Your task to perform on an android device: What's the weather? Image 0: 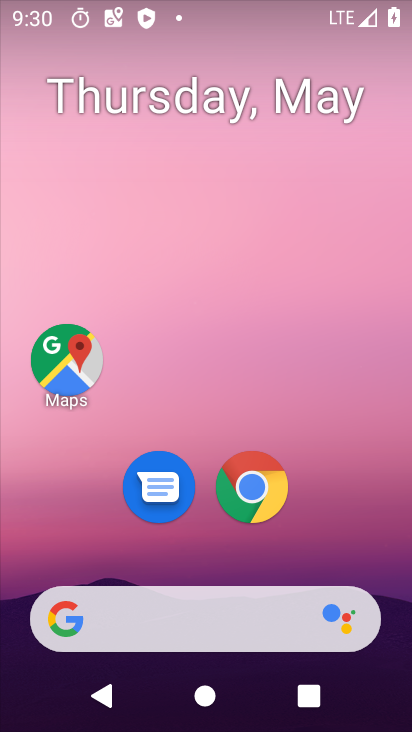
Step 0: drag from (217, 597) to (281, 305)
Your task to perform on an android device: What's the weather? Image 1: 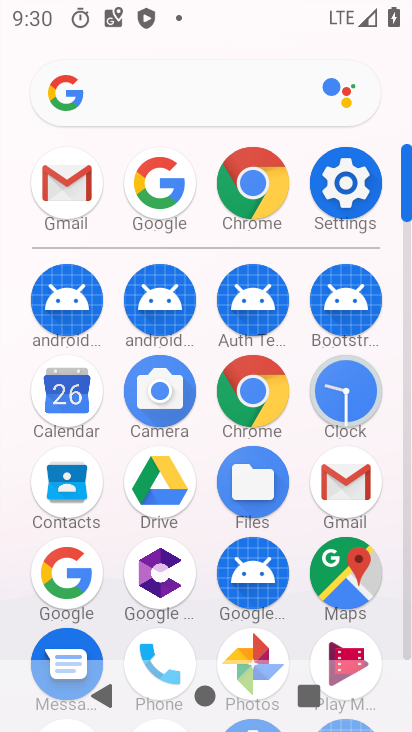
Step 1: click (62, 570)
Your task to perform on an android device: What's the weather? Image 2: 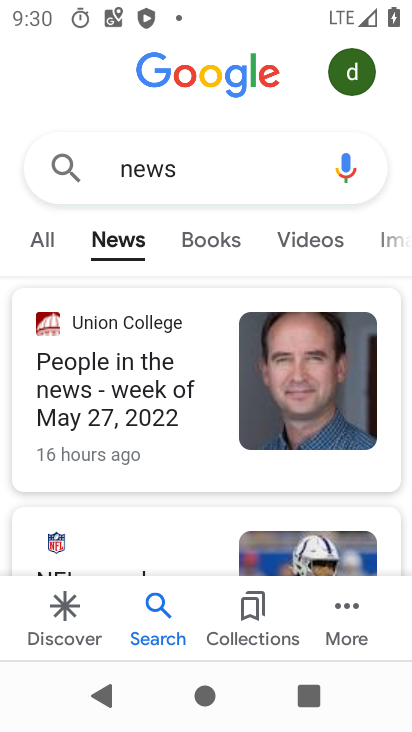
Step 2: click (295, 179)
Your task to perform on an android device: What's the weather? Image 3: 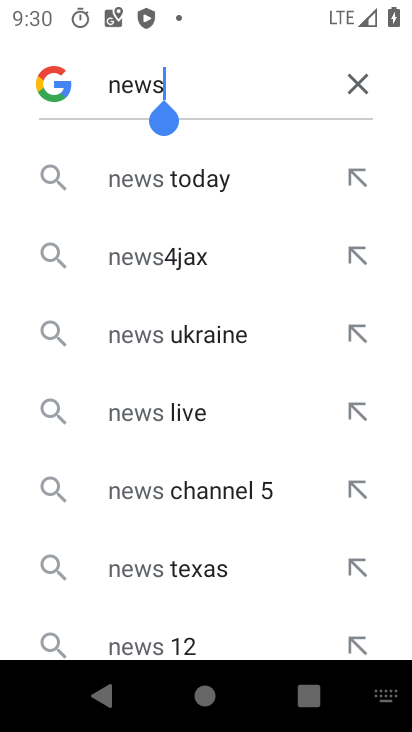
Step 3: click (361, 87)
Your task to perform on an android device: What's the weather? Image 4: 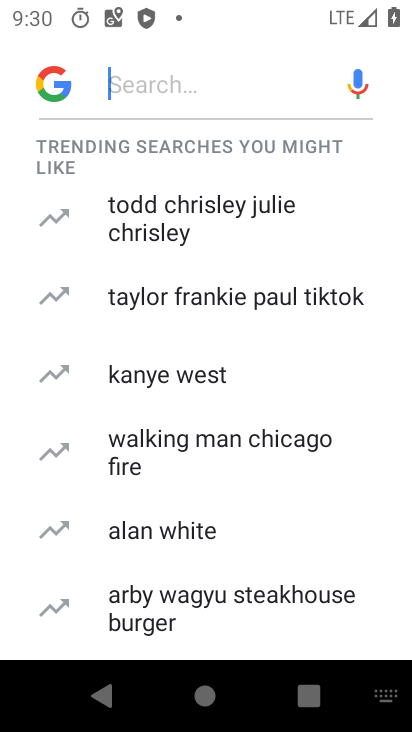
Step 4: type "weather"
Your task to perform on an android device: What's the weather? Image 5: 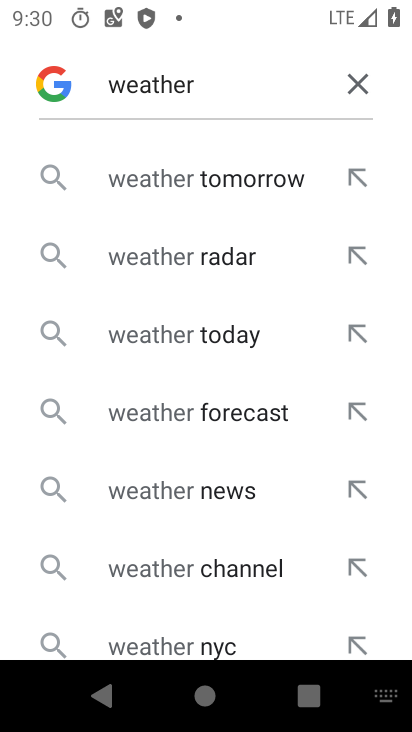
Step 5: click (234, 340)
Your task to perform on an android device: What's the weather? Image 6: 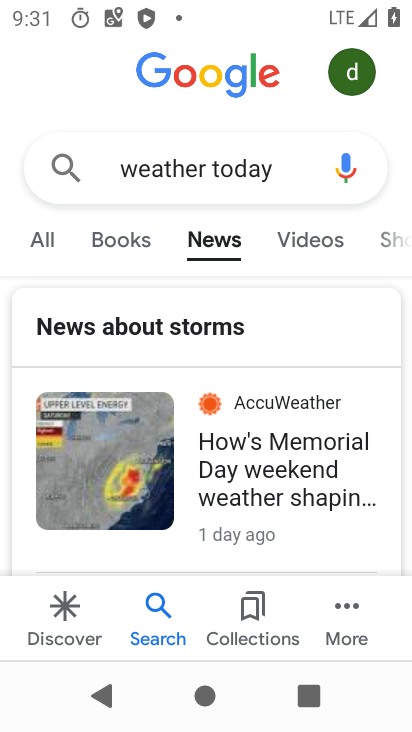
Step 6: click (43, 245)
Your task to perform on an android device: What's the weather? Image 7: 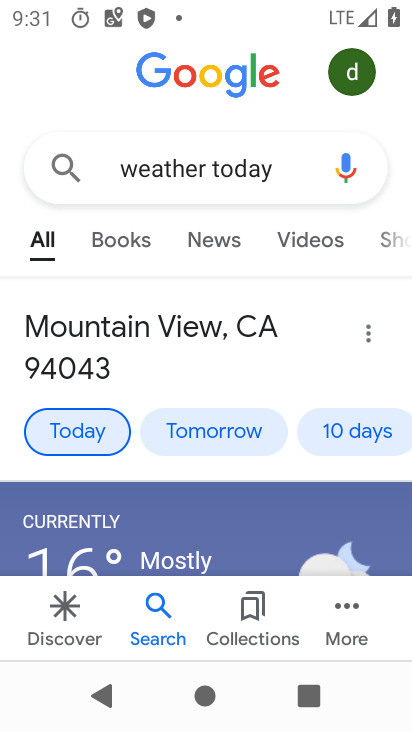
Step 7: task complete